Your task to perform on an android device: Go to Android settings Image 0: 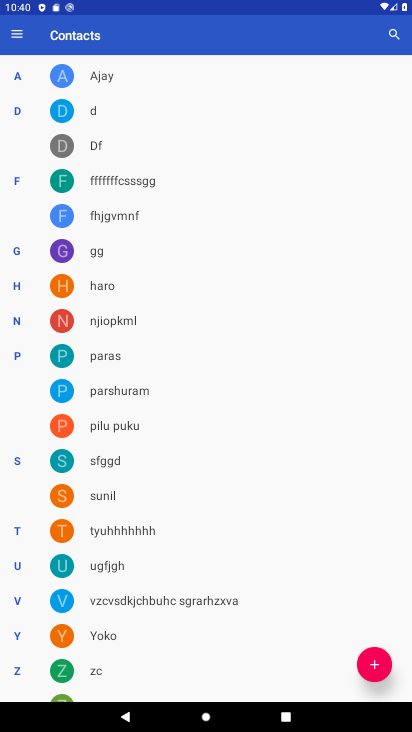
Step 0: press home button
Your task to perform on an android device: Go to Android settings Image 1: 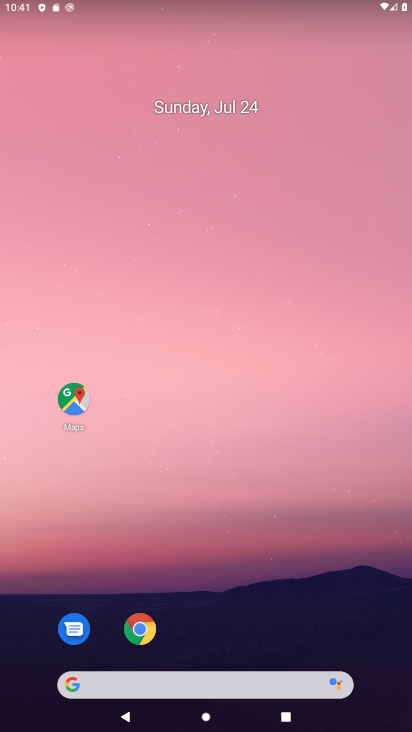
Step 1: drag from (289, 643) to (291, 95)
Your task to perform on an android device: Go to Android settings Image 2: 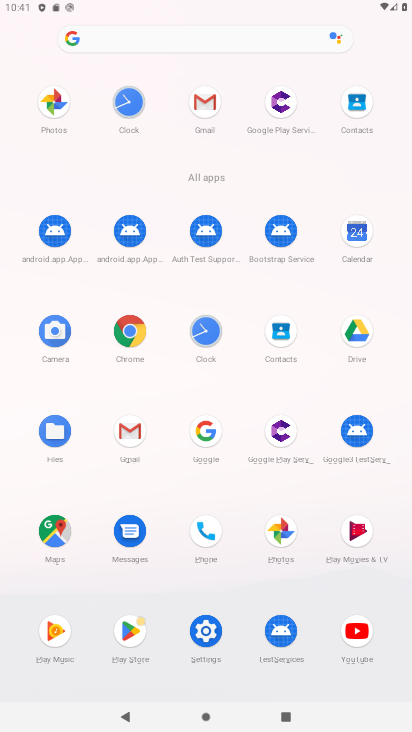
Step 2: click (196, 630)
Your task to perform on an android device: Go to Android settings Image 3: 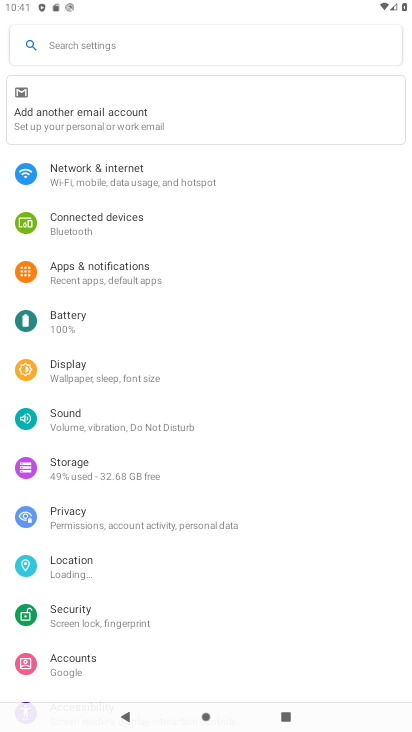
Step 3: drag from (47, 667) to (29, 194)
Your task to perform on an android device: Go to Android settings Image 4: 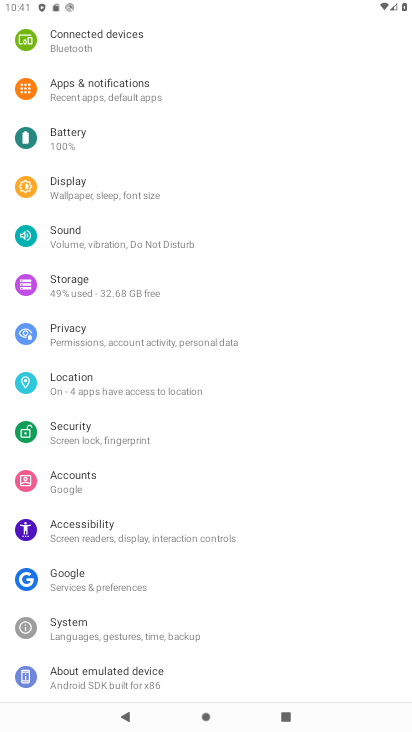
Step 4: click (125, 628)
Your task to perform on an android device: Go to Android settings Image 5: 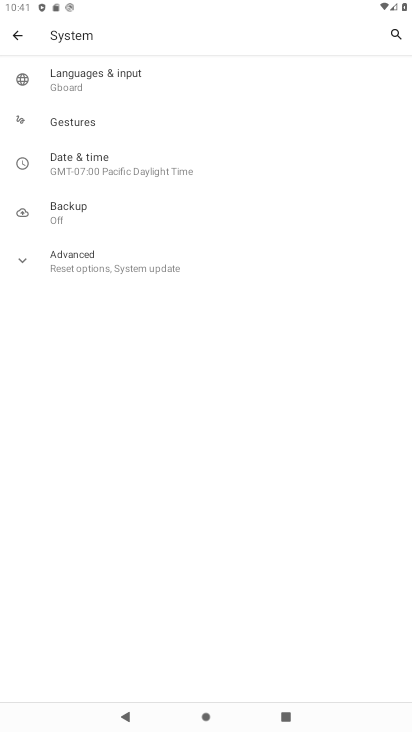
Step 5: task complete